Your task to perform on an android device: choose inbox layout in the gmail app Image 0: 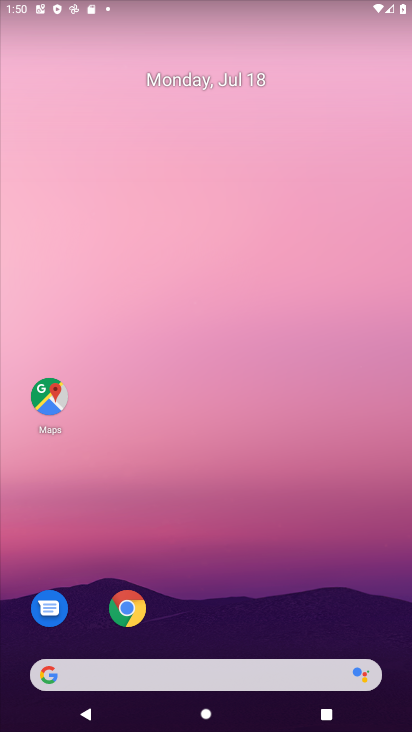
Step 0: drag from (385, 616) to (217, 77)
Your task to perform on an android device: choose inbox layout in the gmail app Image 1: 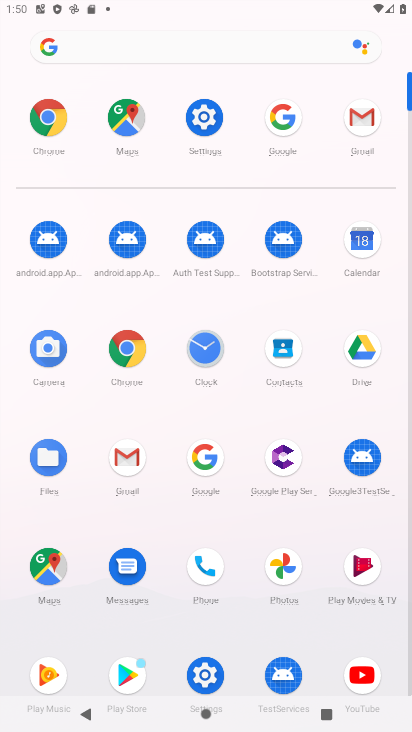
Step 1: click (117, 466)
Your task to perform on an android device: choose inbox layout in the gmail app Image 2: 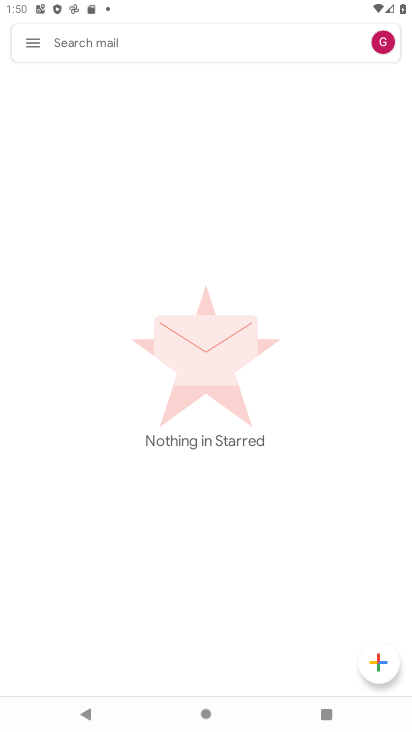
Step 2: task complete